Your task to perform on an android device: stop showing notifications on the lock screen Image 0: 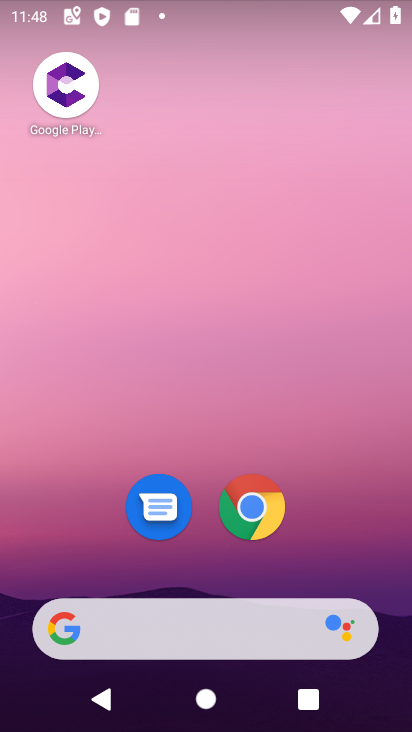
Step 0: press home button
Your task to perform on an android device: stop showing notifications on the lock screen Image 1: 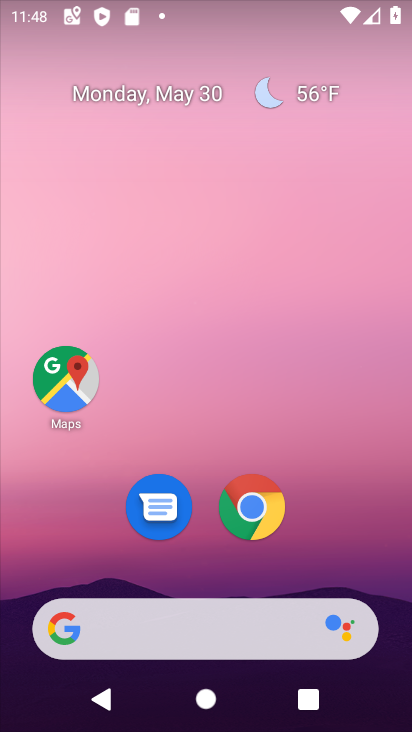
Step 1: drag from (364, 572) to (339, 66)
Your task to perform on an android device: stop showing notifications on the lock screen Image 2: 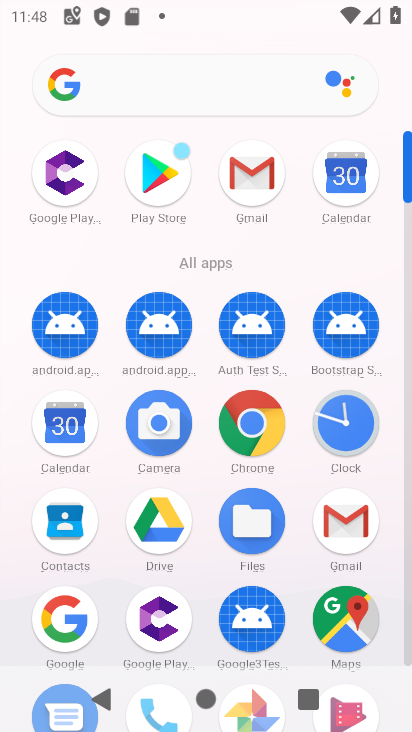
Step 2: drag from (112, 570) to (135, 334)
Your task to perform on an android device: stop showing notifications on the lock screen Image 3: 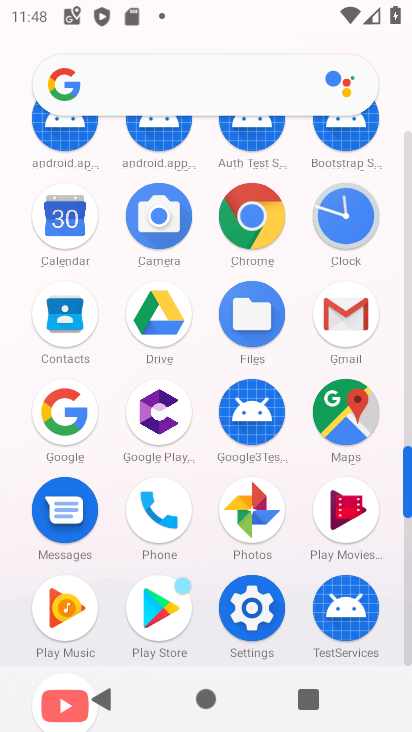
Step 3: click (252, 614)
Your task to perform on an android device: stop showing notifications on the lock screen Image 4: 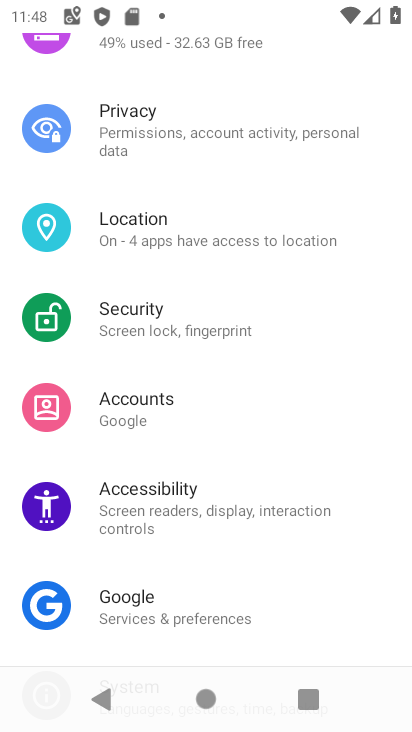
Step 4: drag from (338, 612) to (306, 723)
Your task to perform on an android device: stop showing notifications on the lock screen Image 5: 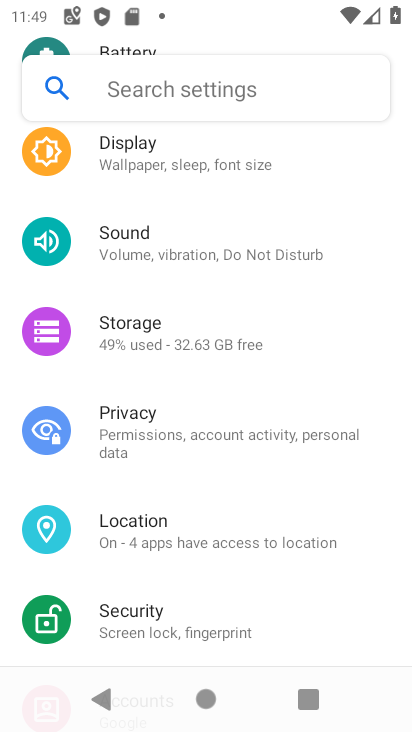
Step 5: drag from (377, 146) to (303, 594)
Your task to perform on an android device: stop showing notifications on the lock screen Image 6: 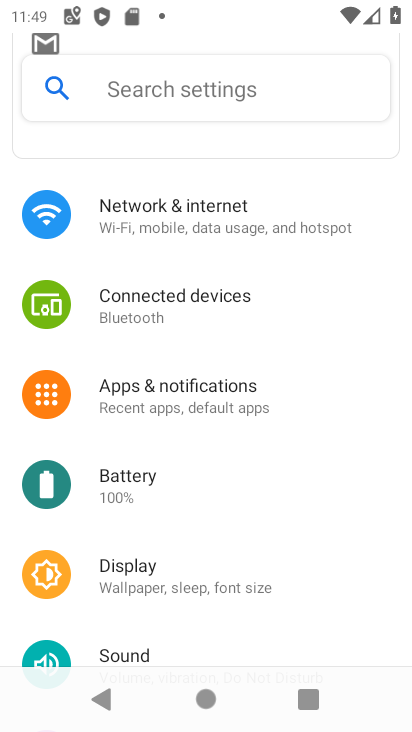
Step 6: click (222, 402)
Your task to perform on an android device: stop showing notifications on the lock screen Image 7: 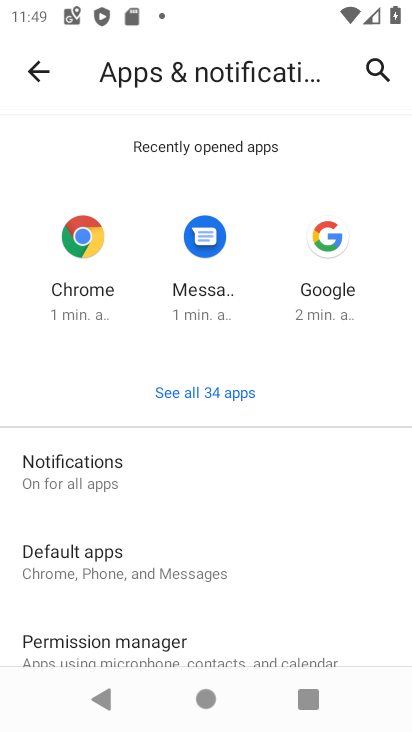
Step 7: drag from (318, 624) to (318, 273)
Your task to perform on an android device: stop showing notifications on the lock screen Image 8: 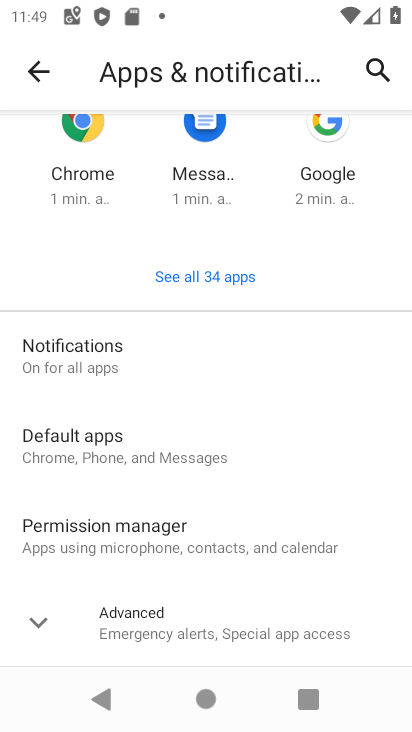
Step 8: click (41, 362)
Your task to perform on an android device: stop showing notifications on the lock screen Image 9: 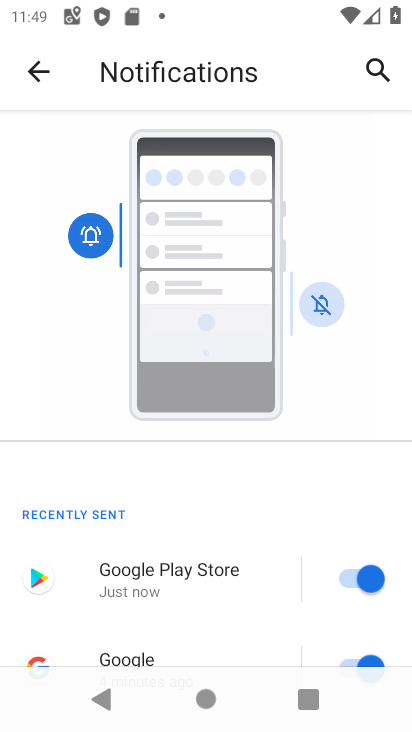
Step 9: drag from (232, 543) to (318, 29)
Your task to perform on an android device: stop showing notifications on the lock screen Image 10: 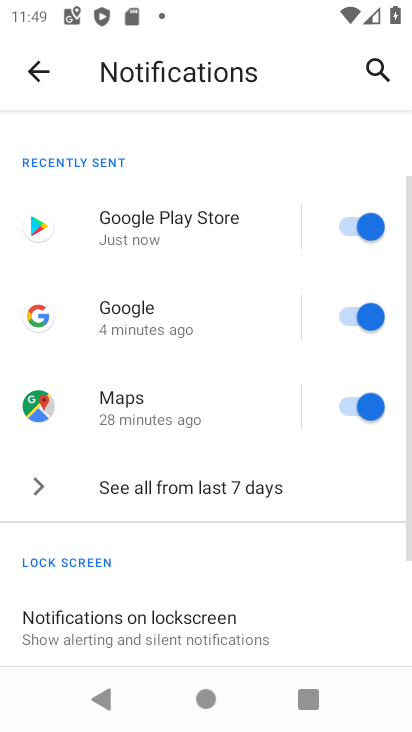
Step 10: click (122, 606)
Your task to perform on an android device: stop showing notifications on the lock screen Image 11: 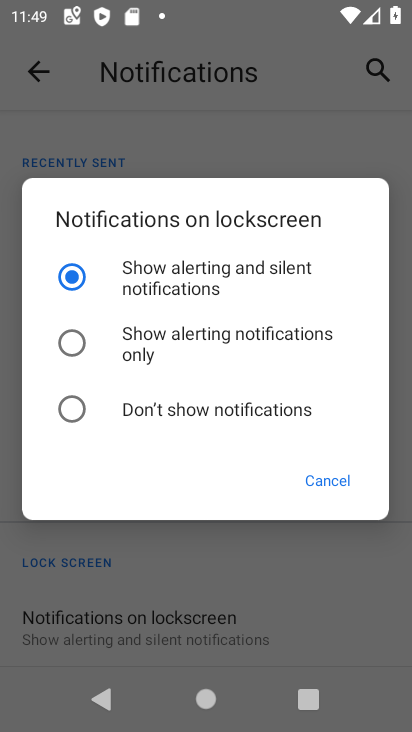
Step 11: click (57, 413)
Your task to perform on an android device: stop showing notifications on the lock screen Image 12: 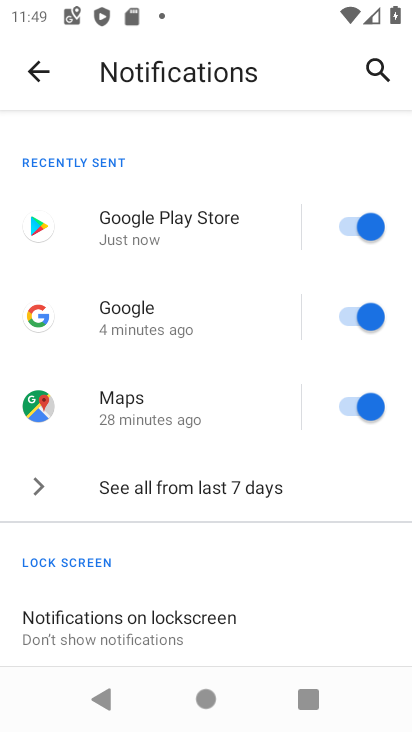
Step 12: task complete